Your task to perform on an android device: What's the weather going to be this weekend? Image 0: 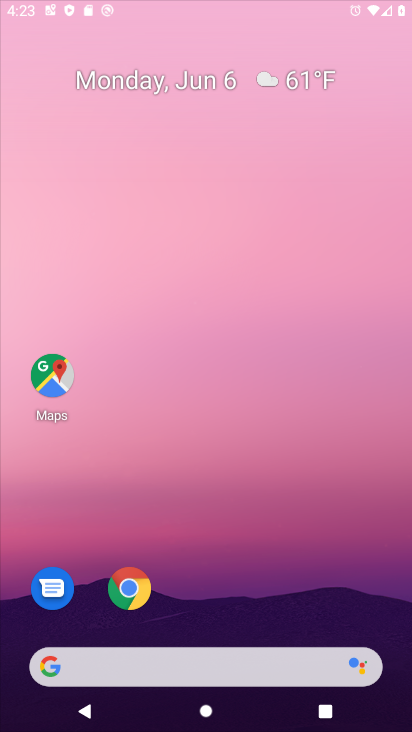
Step 0: click (206, 114)
Your task to perform on an android device: What's the weather going to be this weekend? Image 1: 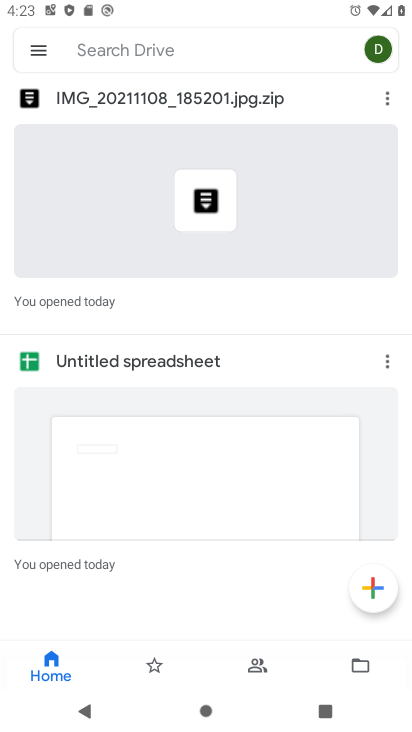
Step 1: press home button
Your task to perform on an android device: What's the weather going to be this weekend? Image 2: 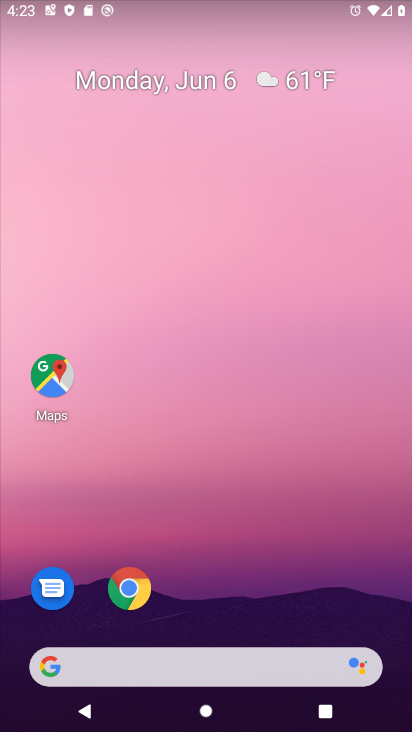
Step 2: click (214, 659)
Your task to perform on an android device: What's the weather going to be this weekend? Image 3: 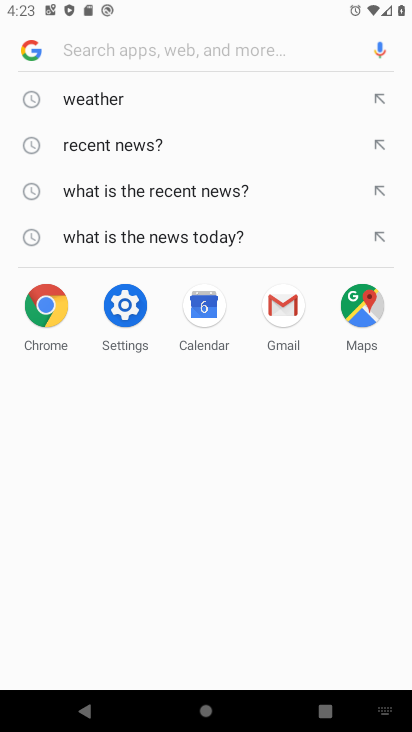
Step 3: type "What's the weather going to be this weekend?"
Your task to perform on an android device: What's the weather going to be this weekend? Image 4: 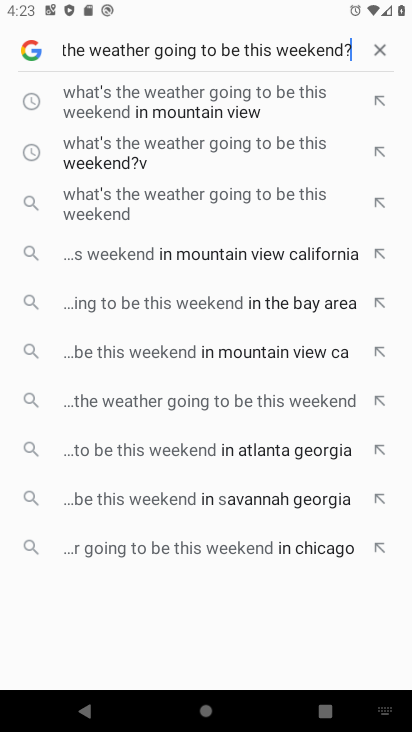
Step 4: press enter
Your task to perform on an android device: What's the weather going to be this weekend? Image 5: 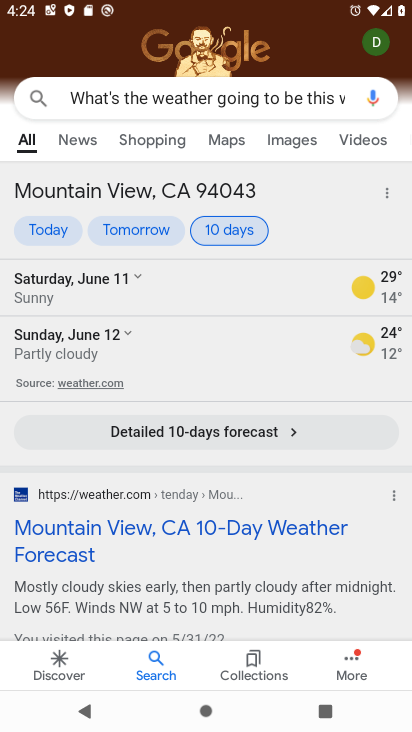
Step 5: task complete